Your task to perform on an android device: Open Google Chrome and open the bookmarks view Image 0: 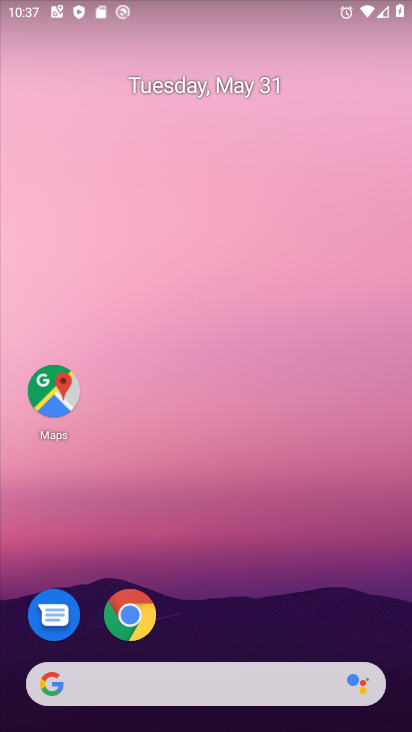
Step 0: drag from (253, 628) to (301, 12)
Your task to perform on an android device: Open Google Chrome and open the bookmarks view Image 1: 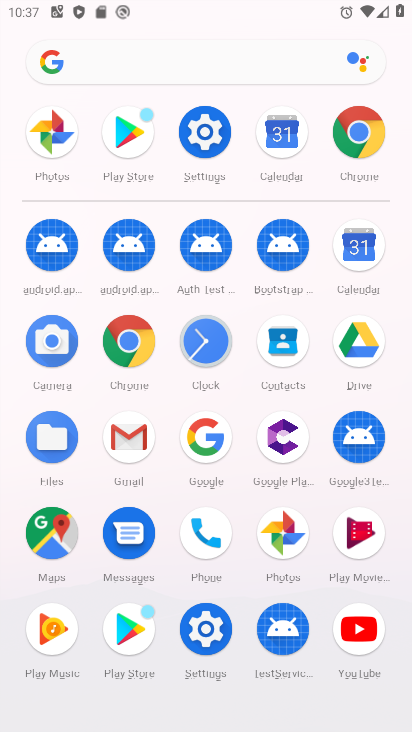
Step 1: click (351, 148)
Your task to perform on an android device: Open Google Chrome and open the bookmarks view Image 2: 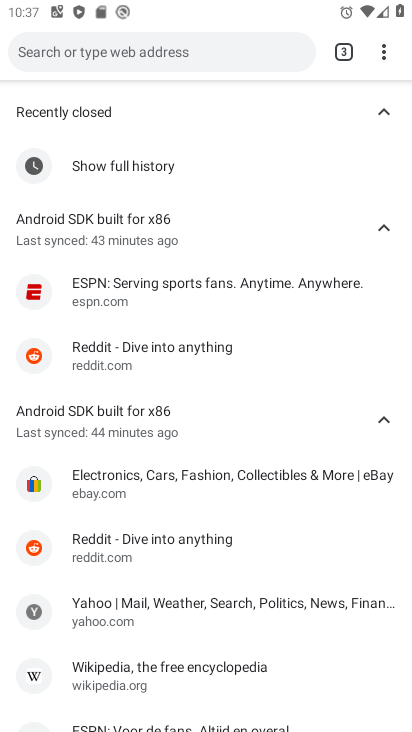
Step 2: task complete